Your task to perform on an android device: allow cookies in the chrome app Image 0: 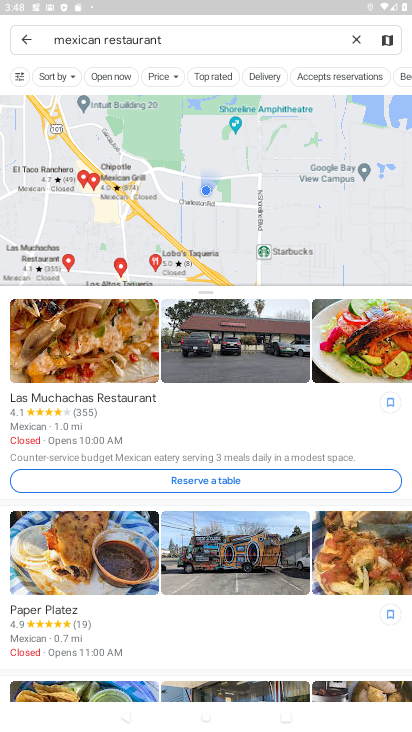
Step 0: press home button
Your task to perform on an android device: allow cookies in the chrome app Image 1: 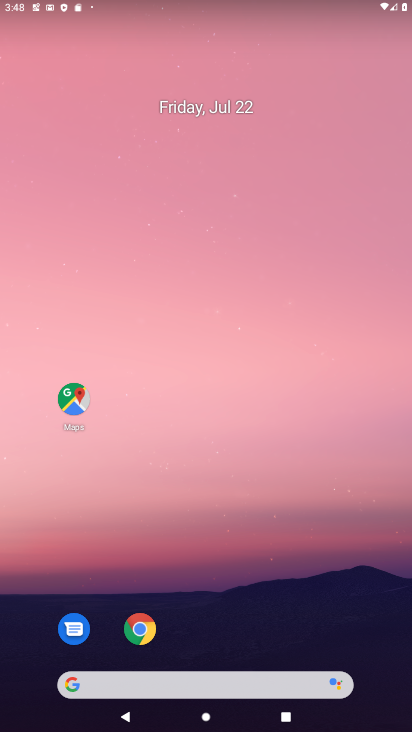
Step 1: click (149, 627)
Your task to perform on an android device: allow cookies in the chrome app Image 2: 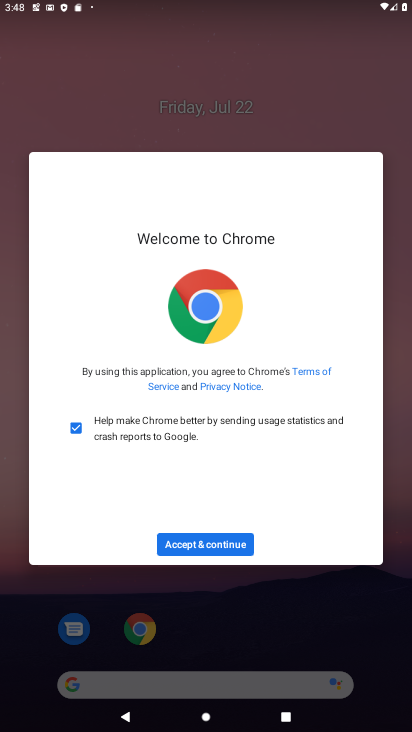
Step 2: click (232, 538)
Your task to perform on an android device: allow cookies in the chrome app Image 3: 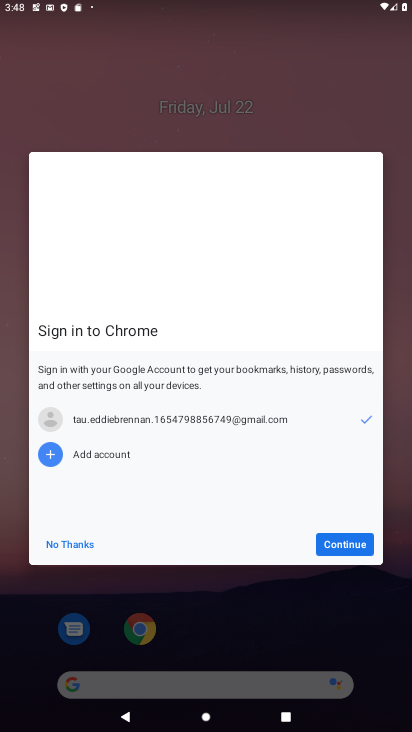
Step 3: click (331, 538)
Your task to perform on an android device: allow cookies in the chrome app Image 4: 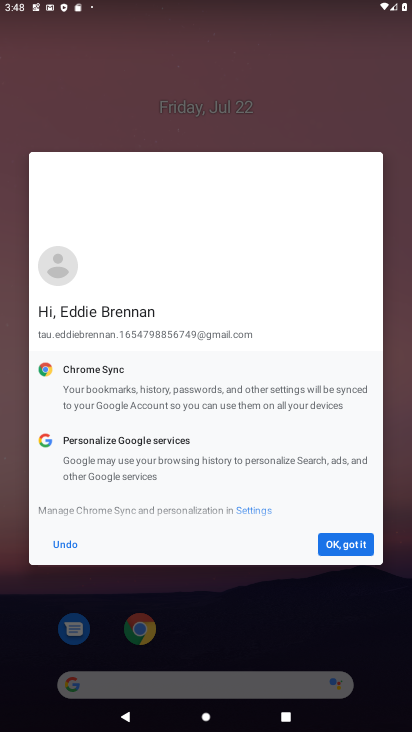
Step 4: click (331, 538)
Your task to perform on an android device: allow cookies in the chrome app Image 5: 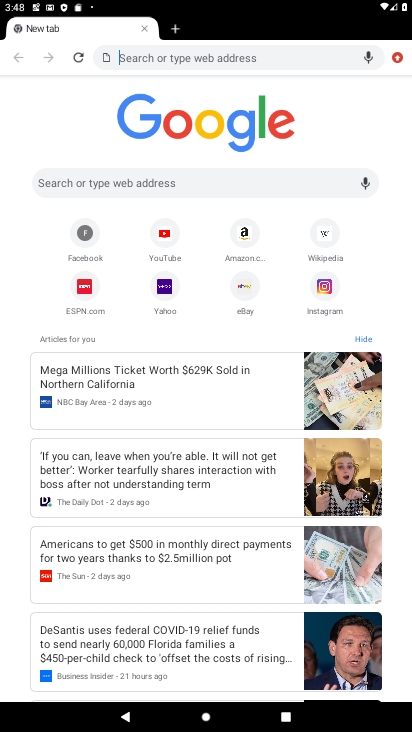
Step 5: click (402, 59)
Your task to perform on an android device: allow cookies in the chrome app Image 6: 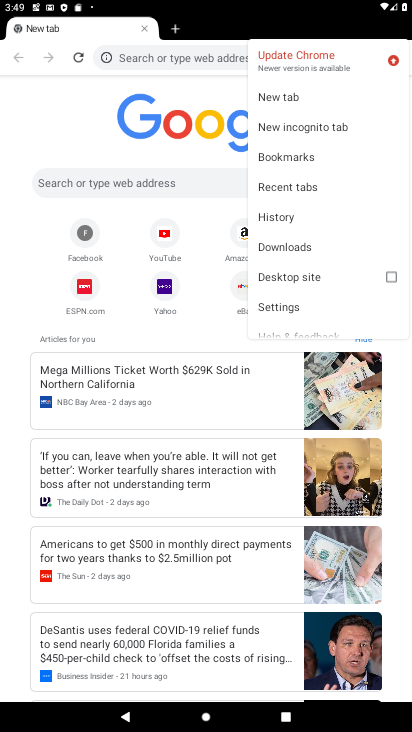
Step 6: click (307, 304)
Your task to perform on an android device: allow cookies in the chrome app Image 7: 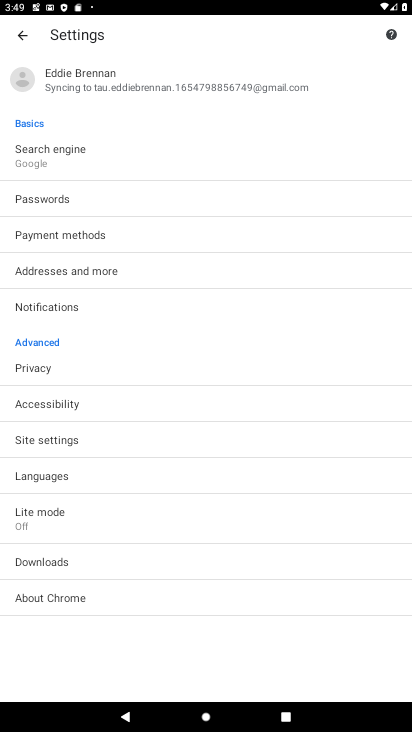
Step 7: click (69, 433)
Your task to perform on an android device: allow cookies in the chrome app Image 8: 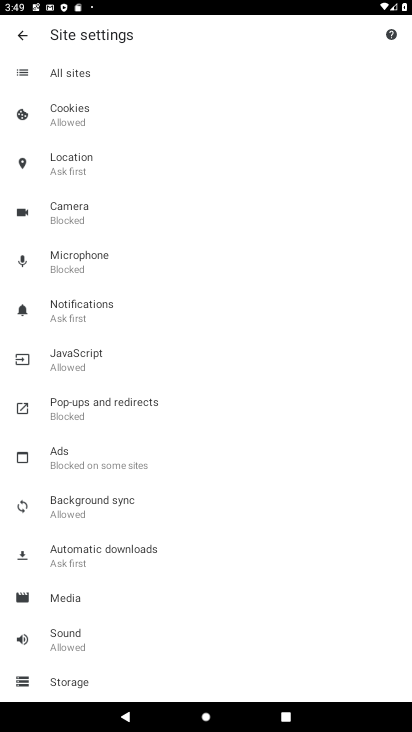
Step 8: click (76, 116)
Your task to perform on an android device: allow cookies in the chrome app Image 9: 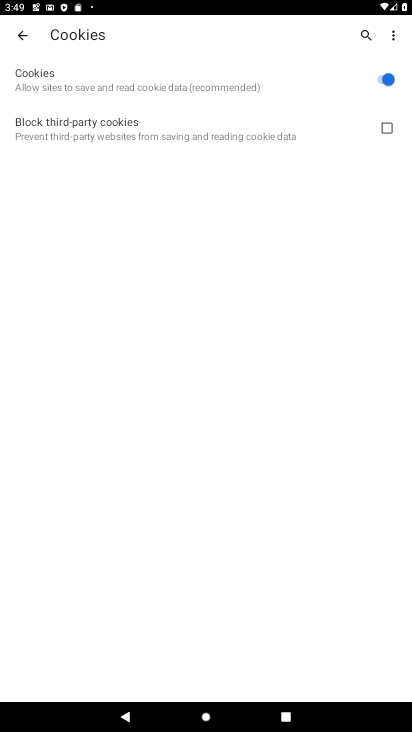
Step 9: task complete